Your task to perform on an android device: What's the news in Malaysia? Image 0: 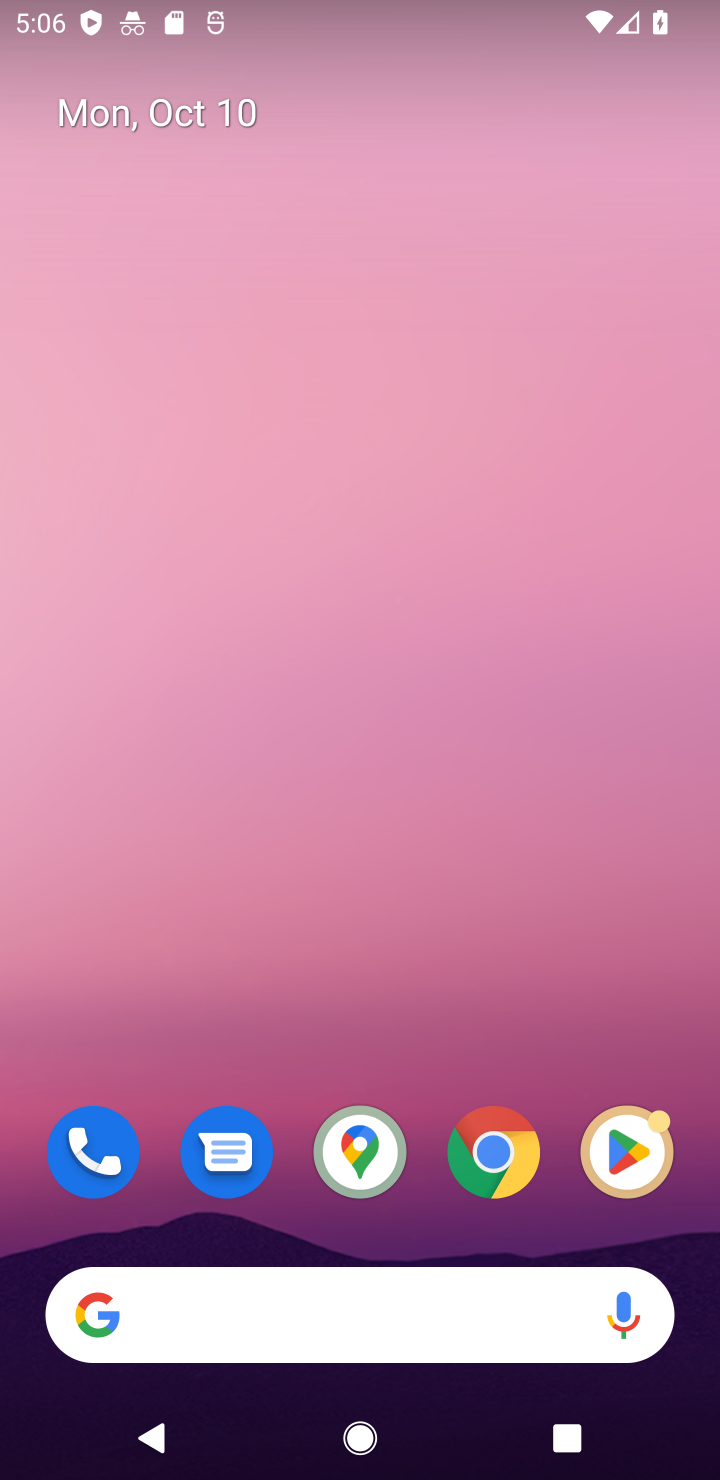
Step 0: click (491, 1152)
Your task to perform on an android device: What's the news in Malaysia? Image 1: 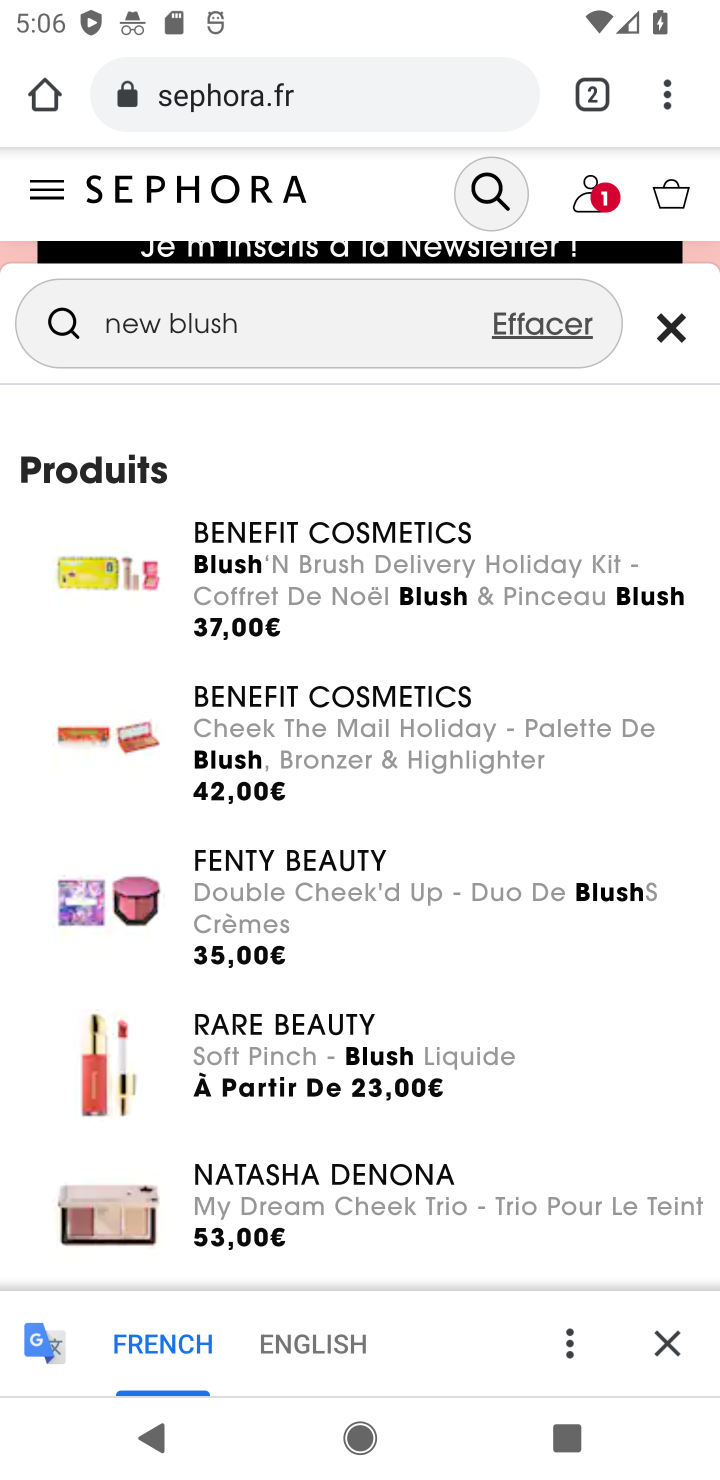
Step 1: click (402, 96)
Your task to perform on an android device: What's the news in Malaysia? Image 2: 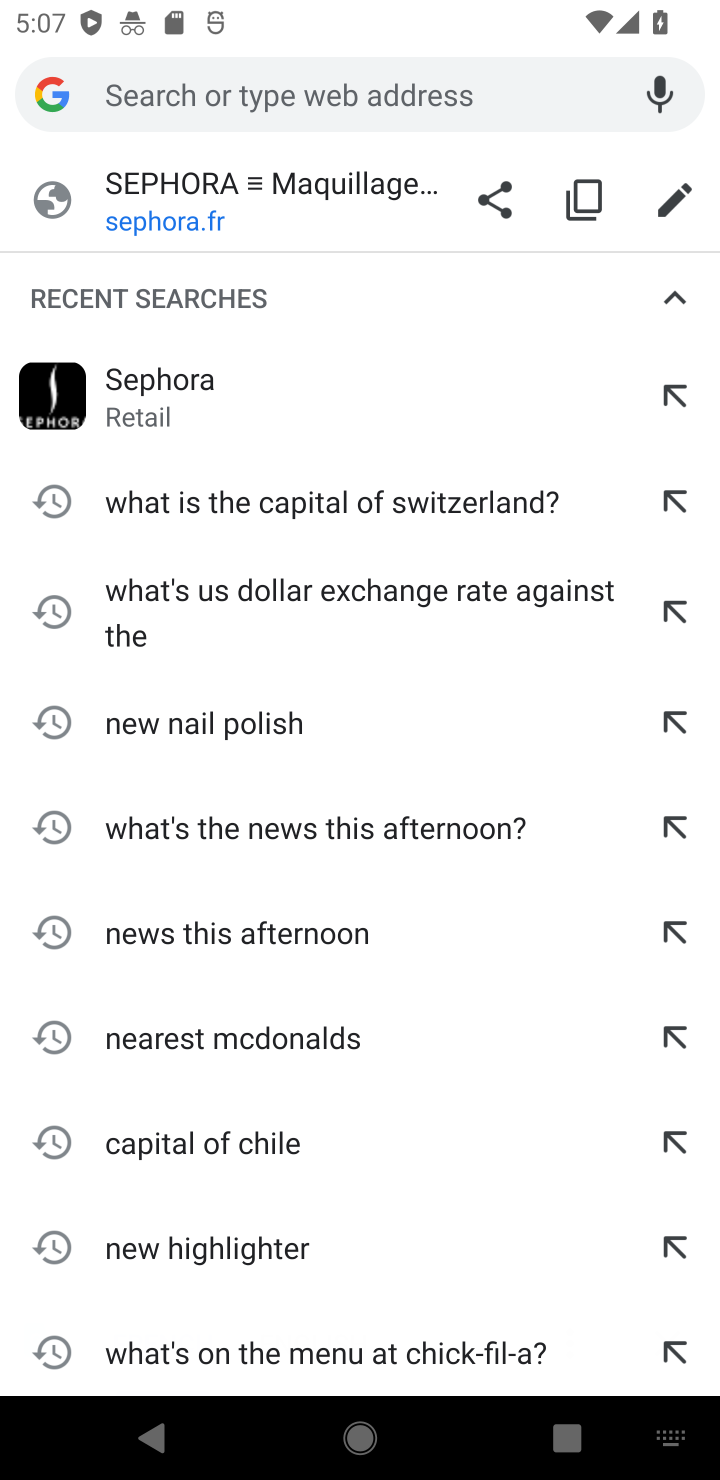
Step 2: type "news in Malaysia"
Your task to perform on an android device: What's the news in Malaysia? Image 3: 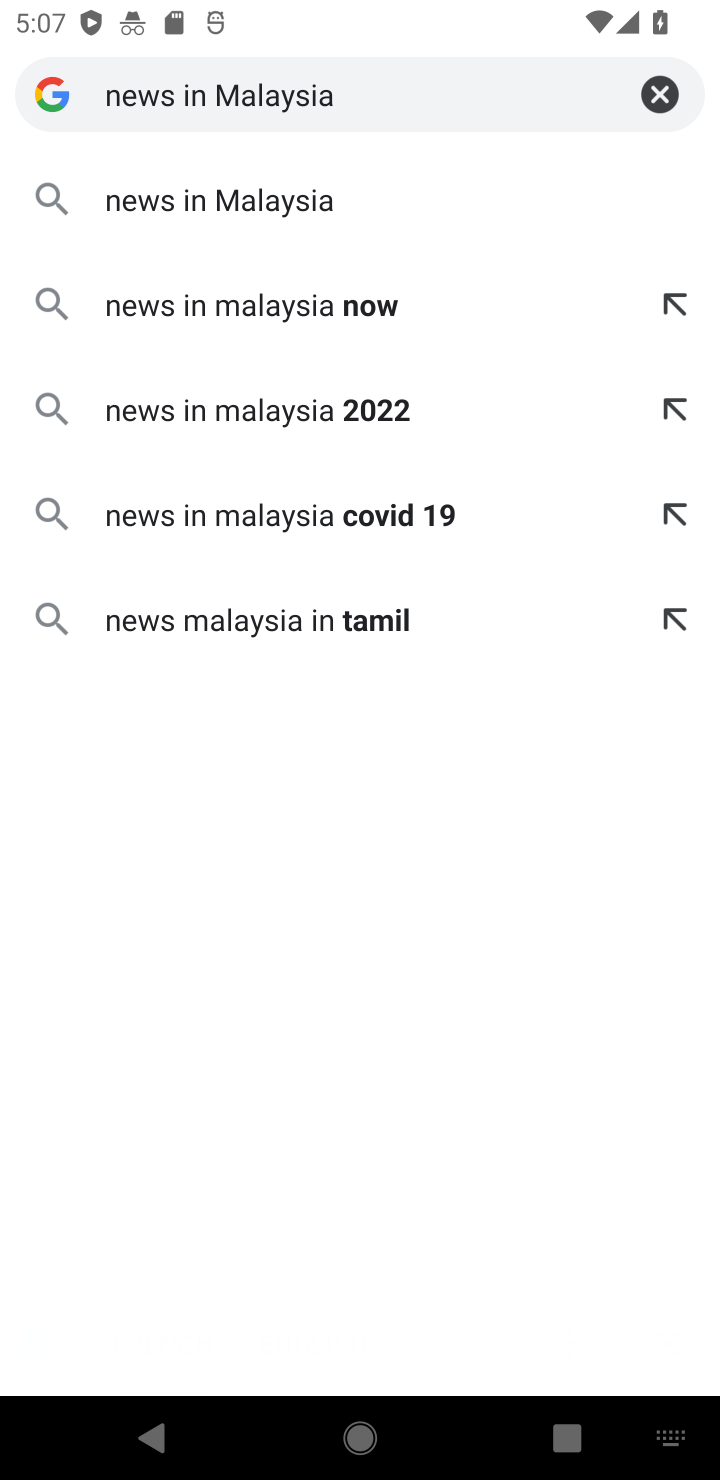
Step 3: click (255, 221)
Your task to perform on an android device: What's the news in Malaysia? Image 4: 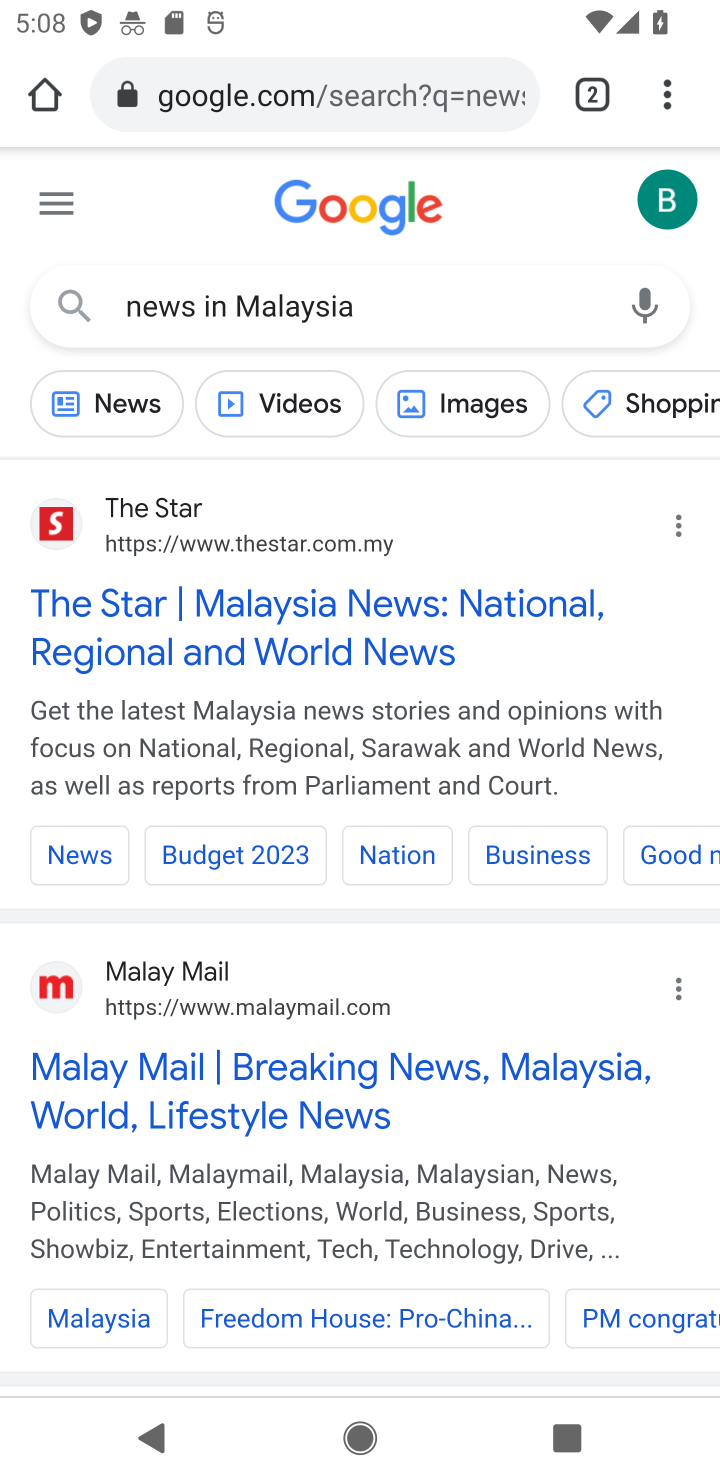
Step 4: click (313, 644)
Your task to perform on an android device: What's the news in Malaysia? Image 5: 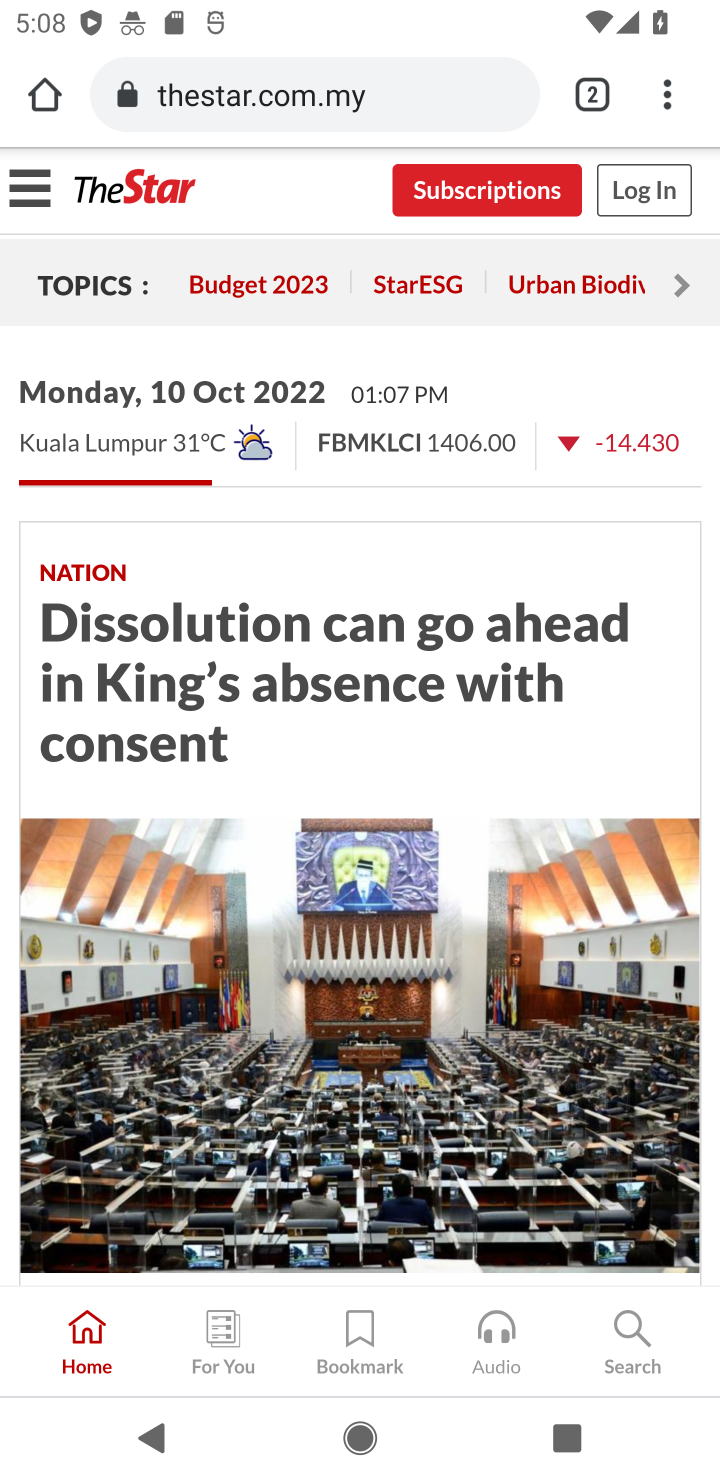
Step 5: task complete